Your task to perform on an android device: toggle javascript in the chrome app Image 0: 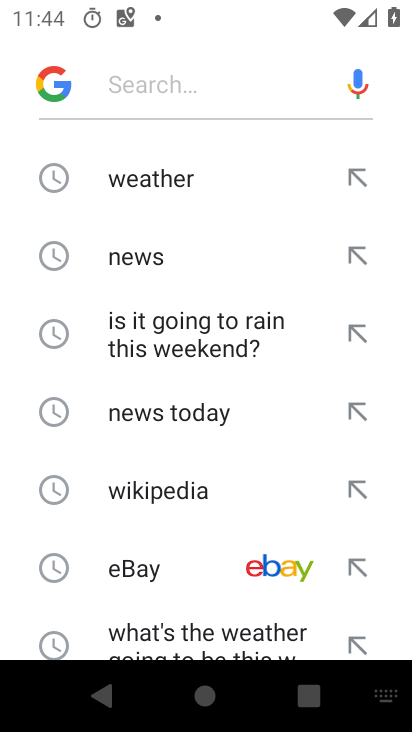
Step 0: press back button
Your task to perform on an android device: toggle javascript in the chrome app Image 1: 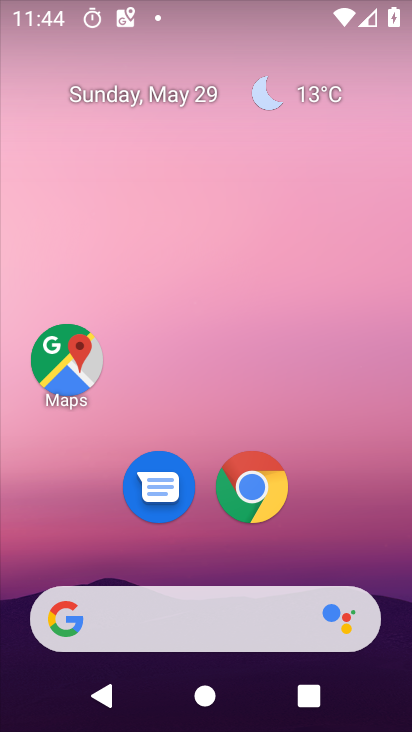
Step 1: click (254, 482)
Your task to perform on an android device: toggle javascript in the chrome app Image 2: 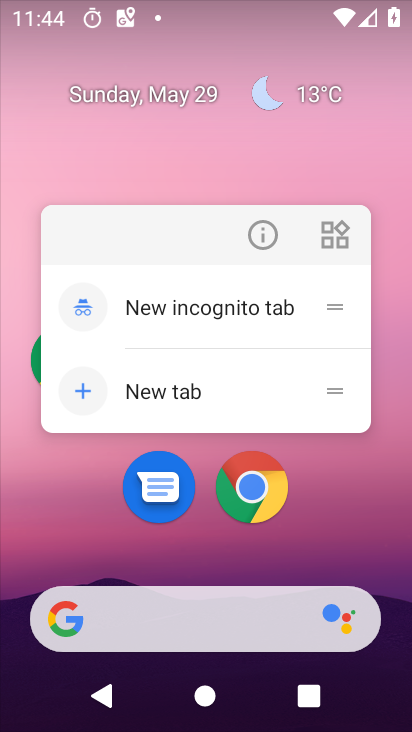
Step 2: click (251, 480)
Your task to perform on an android device: toggle javascript in the chrome app Image 3: 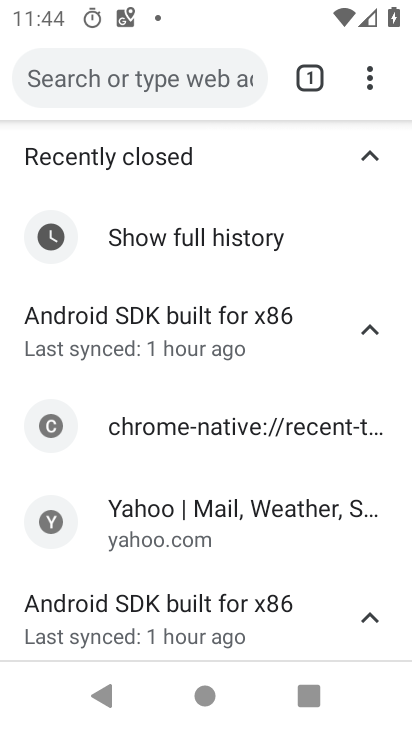
Step 3: click (363, 79)
Your task to perform on an android device: toggle javascript in the chrome app Image 4: 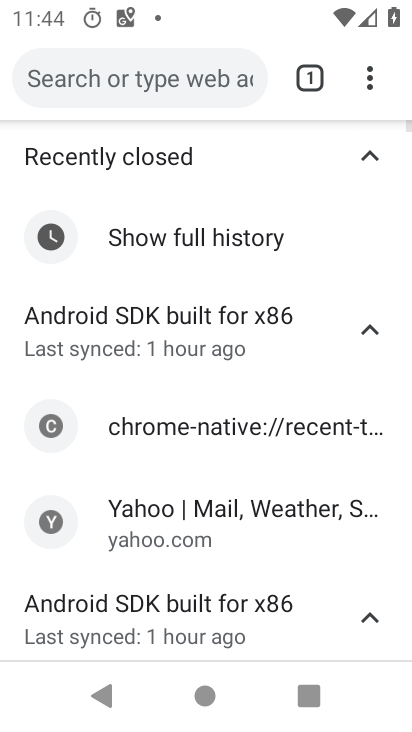
Step 4: click (367, 74)
Your task to perform on an android device: toggle javascript in the chrome app Image 5: 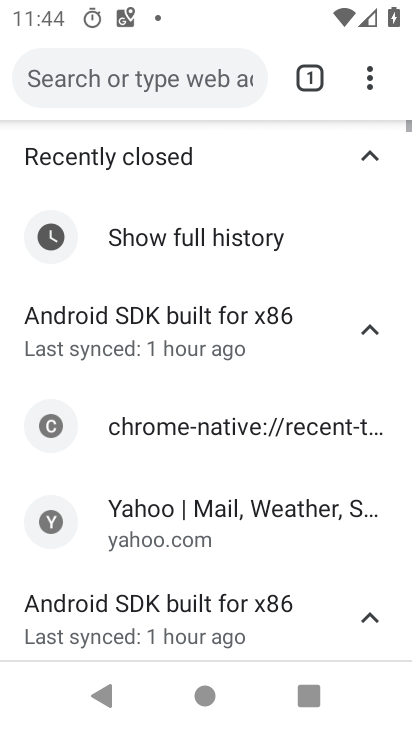
Step 5: click (367, 74)
Your task to perform on an android device: toggle javascript in the chrome app Image 6: 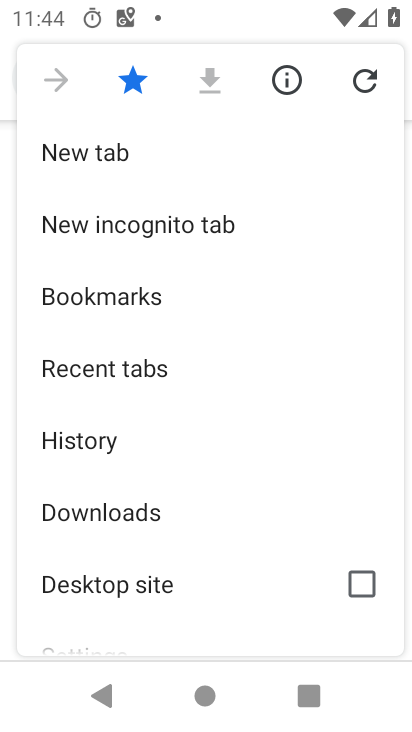
Step 6: click (368, 74)
Your task to perform on an android device: toggle javascript in the chrome app Image 7: 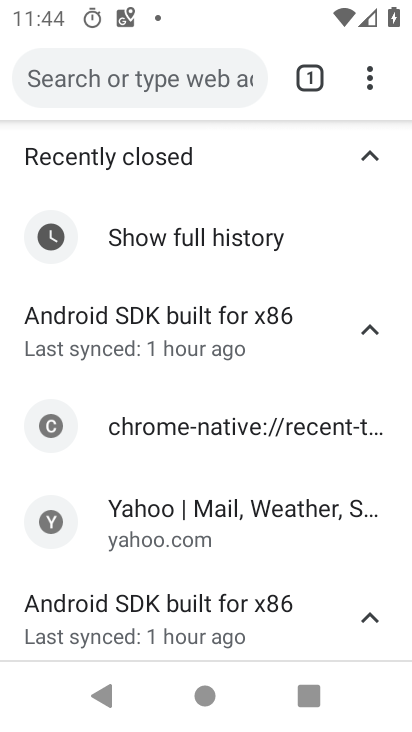
Step 7: click (368, 74)
Your task to perform on an android device: toggle javascript in the chrome app Image 8: 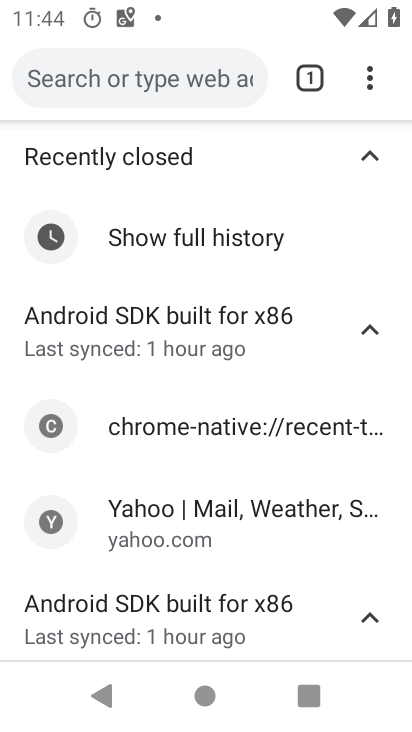
Step 8: click (362, 67)
Your task to perform on an android device: toggle javascript in the chrome app Image 9: 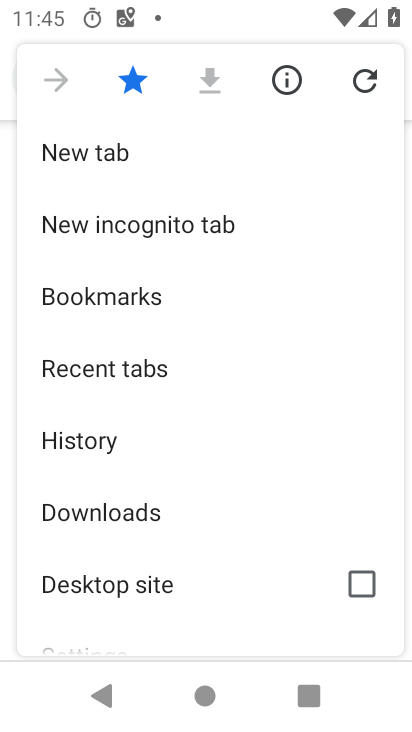
Step 9: drag from (244, 605) to (299, 187)
Your task to perform on an android device: toggle javascript in the chrome app Image 10: 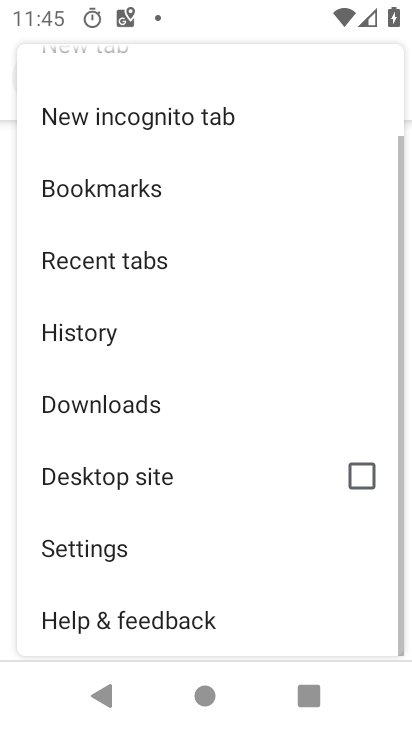
Step 10: drag from (254, 564) to (247, 339)
Your task to perform on an android device: toggle javascript in the chrome app Image 11: 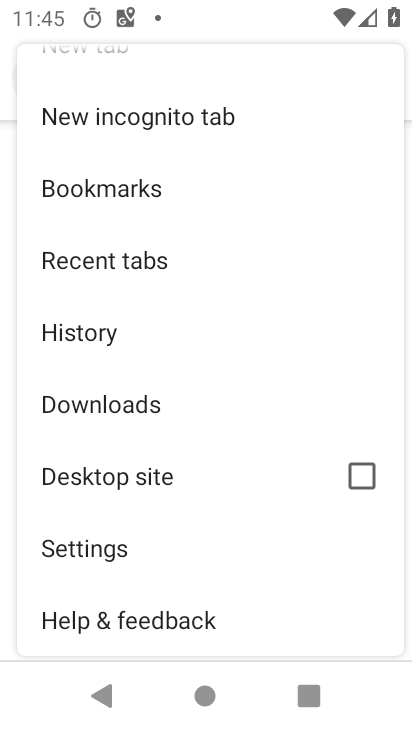
Step 11: click (82, 548)
Your task to perform on an android device: toggle javascript in the chrome app Image 12: 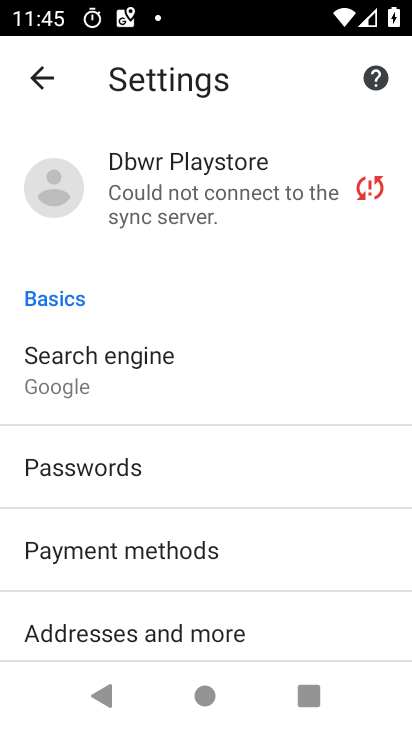
Step 12: drag from (290, 616) to (351, 291)
Your task to perform on an android device: toggle javascript in the chrome app Image 13: 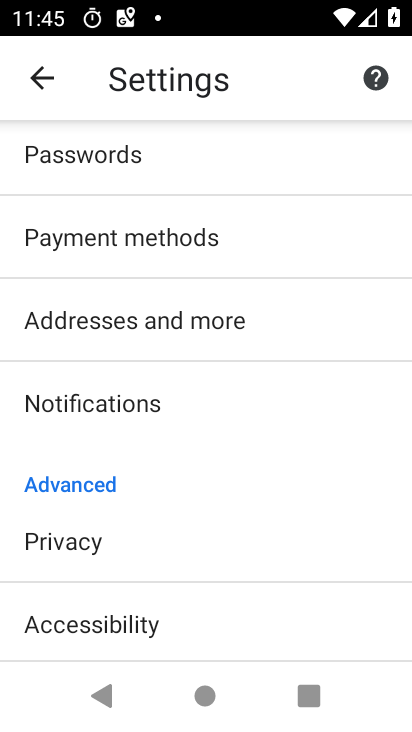
Step 13: drag from (182, 551) to (219, 322)
Your task to perform on an android device: toggle javascript in the chrome app Image 14: 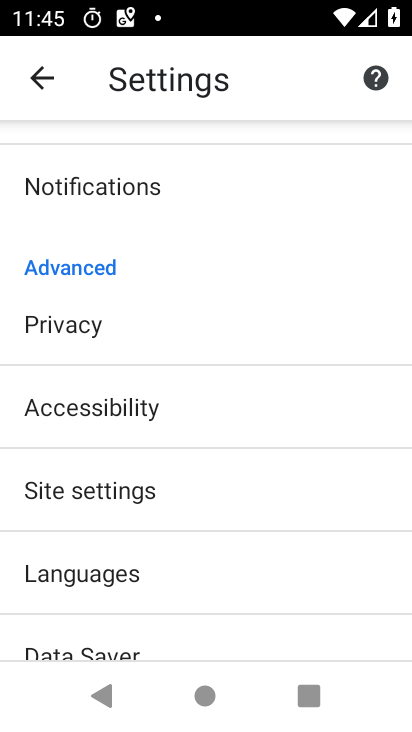
Step 14: drag from (159, 488) to (163, 394)
Your task to perform on an android device: toggle javascript in the chrome app Image 15: 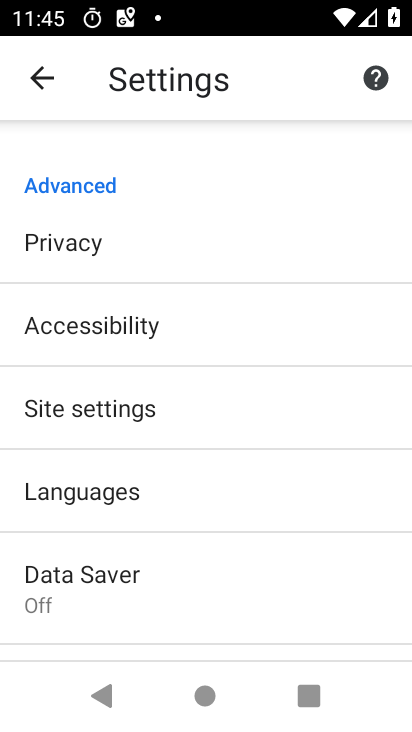
Step 15: click (130, 407)
Your task to perform on an android device: toggle javascript in the chrome app Image 16: 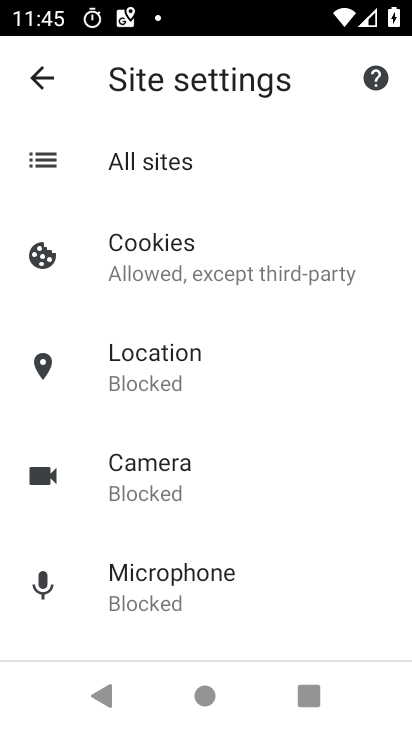
Step 16: drag from (296, 569) to (305, 232)
Your task to perform on an android device: toggle javascript in the chrome app Image 17: 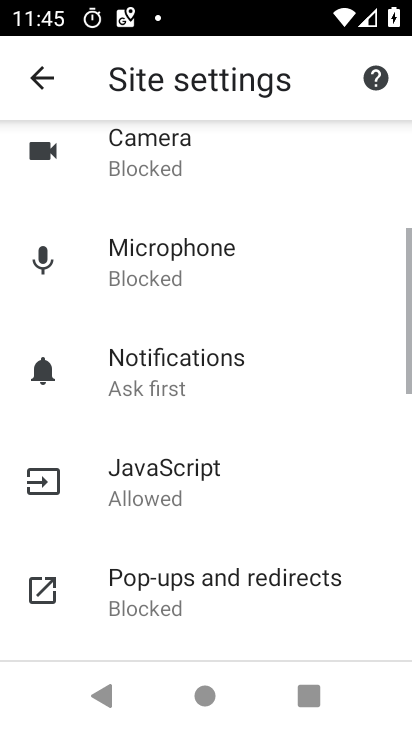
Step 17: click (176, 482)
Your task to perform on an android device: toggle javascript in the chrome app Image 18: 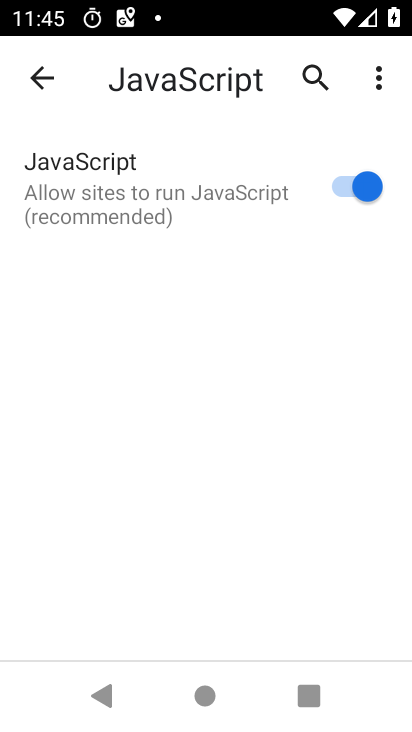
Step 18: click (344, 183)
Your task to perform on an android device: toggle javascript in the chrome app Image 19: 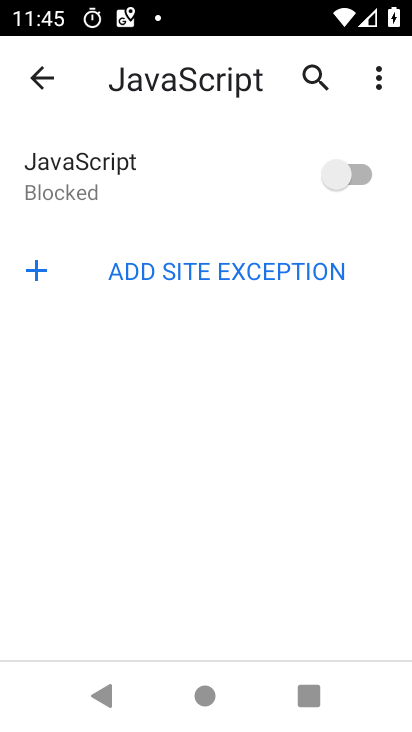
Step 19: task complete